Your task to perform on an android device: Install the CNN app Image 0: 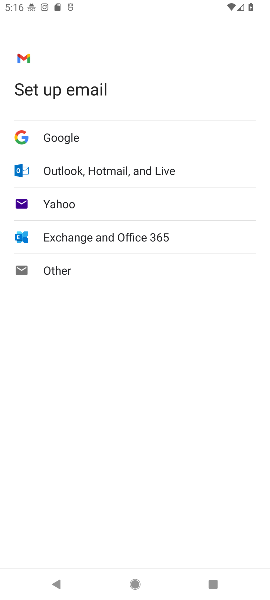
Step 0: press home button
Your task to perform on an android device: Install the CNN app Image 1: 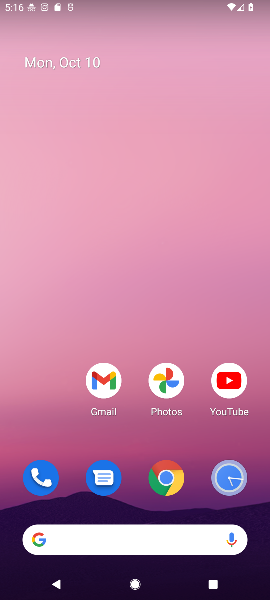
Step 1: drag from (142, 344) to (169, 169)
Your task to perform on an android device: Install the CNN app Image 2: 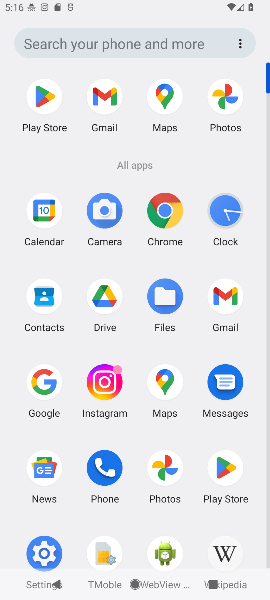
Step 2: click (47, 92)
Your task to perform on an android device: Install the CNN app Image 3: 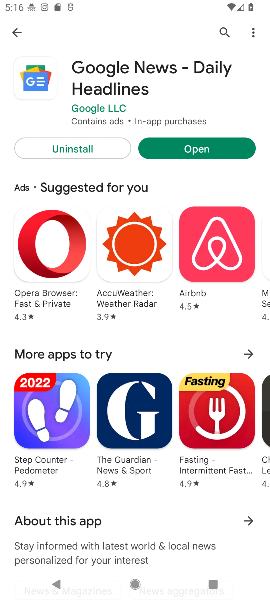
Step 3: click (19, 30)
Your task to perform on an android device: Install the CNN app Image 4: 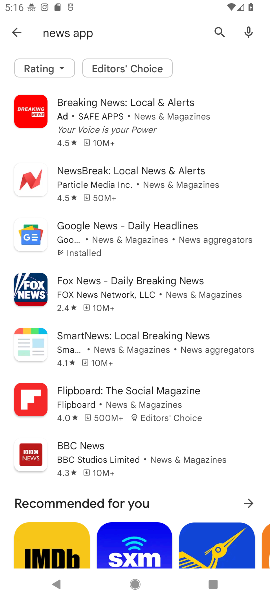
Step 4: click (220, 31)
Your task to perform on an android device: Install the CNN app Image 5: 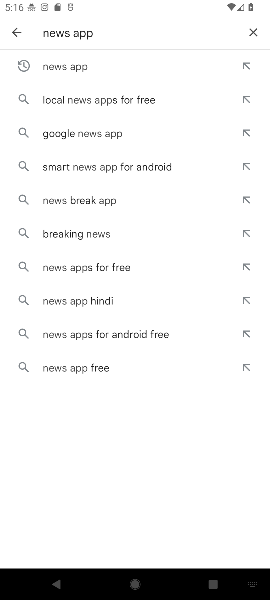
Step 5: type "cnn"
Your task to perform on an android device: Install the CNN app Image 6: 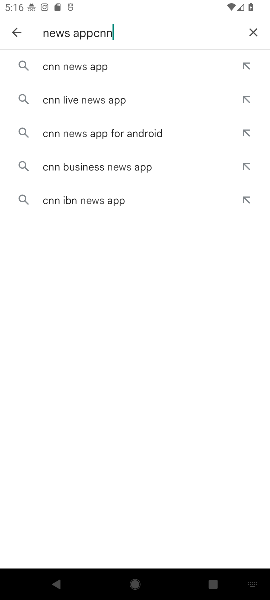
Step 6: click (86, 66)
Your task to perform on an android device: Install the CNN app Image 7: 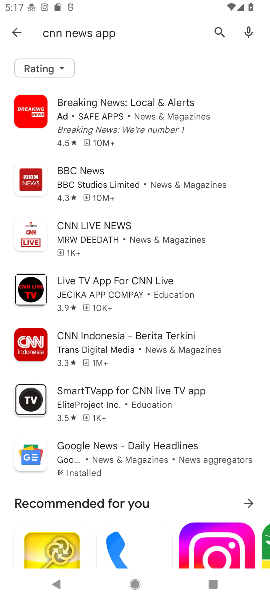
Step 7: click (134, 232)
Your task to perform on an android device: Install the CNN app Image 8: 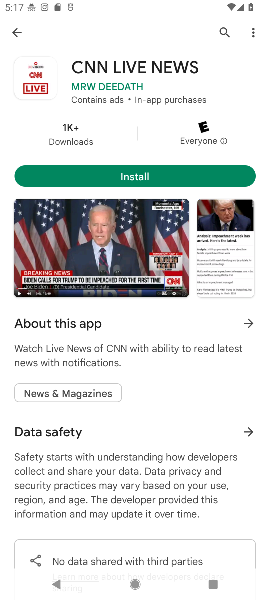
Step 8: click (224, 34)
Your task to perform on an android device: Install the CNN app Image 9: 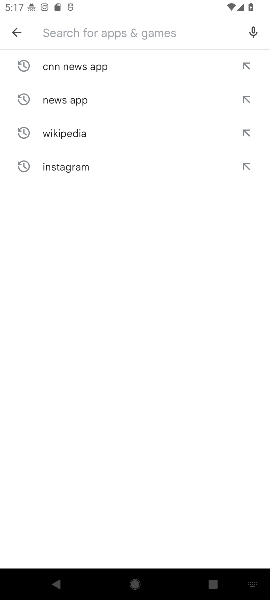
Step 9: type "cnn app"
Your task to perform on an android device: Install the CNN app Image 10: 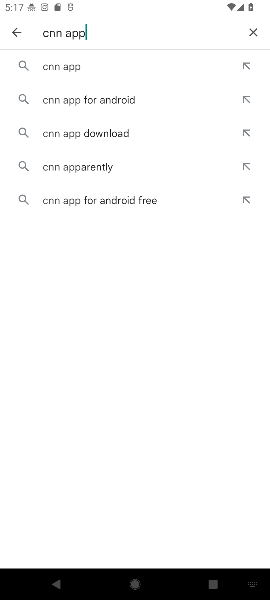
Step 10: click (129, 51)
Your task to perform on an android device: Install the CNN app Image 11: 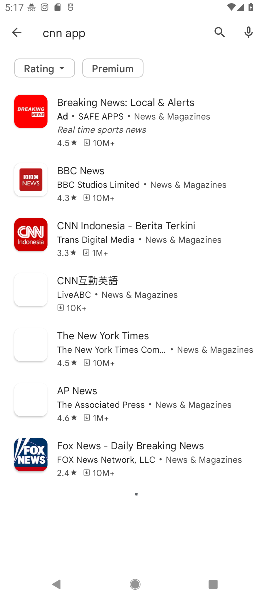
Step 11: click (71, 64)
Your task to perform on an android device: Install the CNN app Image 12: 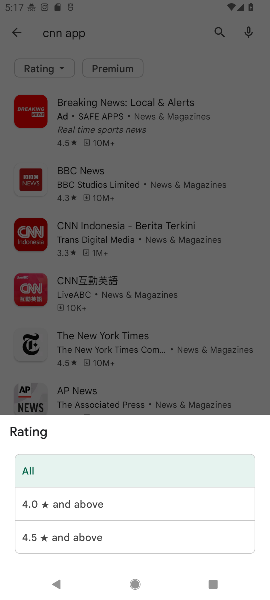
Step 12: click (165, 268)
Your task to perform on an android device: Install the CNN app Image 13: 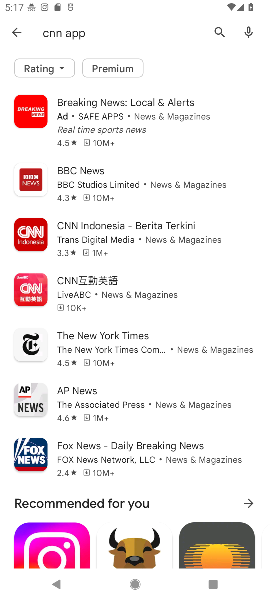
Step 13: click (10, 33)
Your task to perform on an android device: Install the CNN app Image 14: 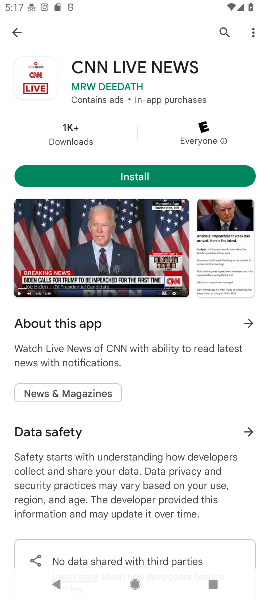
Step 14: click (186, 169)
Your task to perform on an android device: Install the CNN app Image 15: 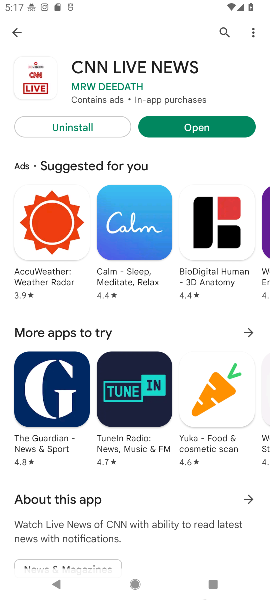
Step 15: task complete